Your task to perform on an android device: set the timer Image 0: 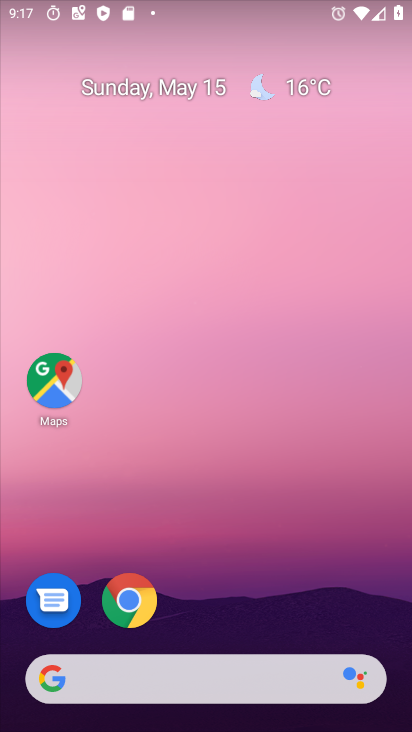
Step 0: drag from (233, 594) to (258, 117)
Your task to perform on an android device: set the timer Image 1: 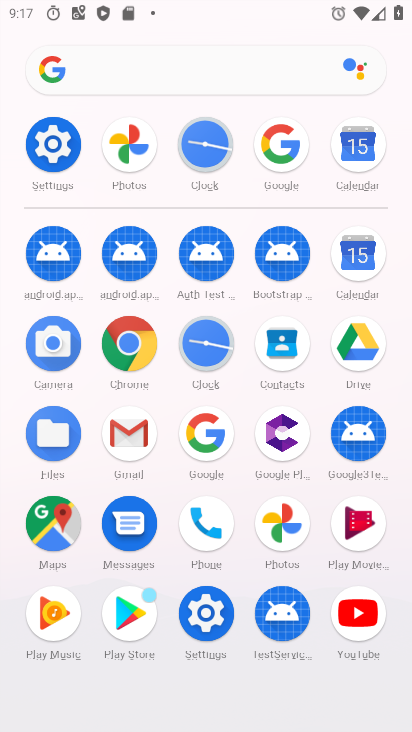
Step 1: click (207, 346)
Your task to perform on an android device: set the timer Image 2: 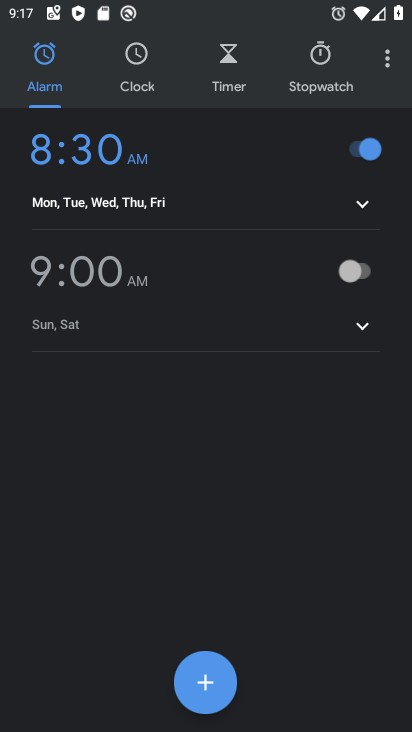
Step 2: click (237, 69)
Your task to perform on an android device: set the timer Image 3: 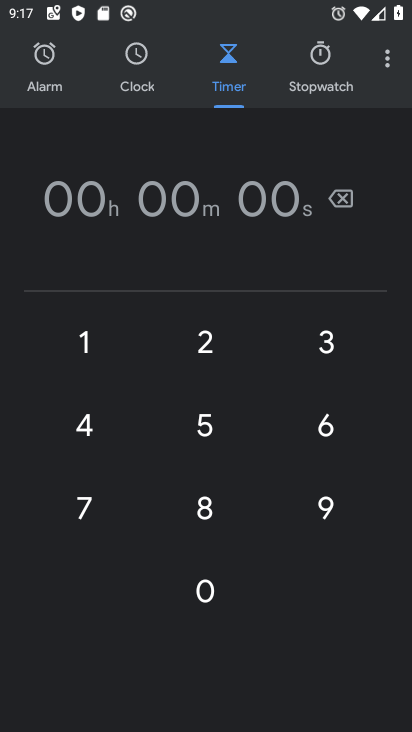
Step 3: click (206, 336)
Your task to perform on an android device: set the timer Image 4: 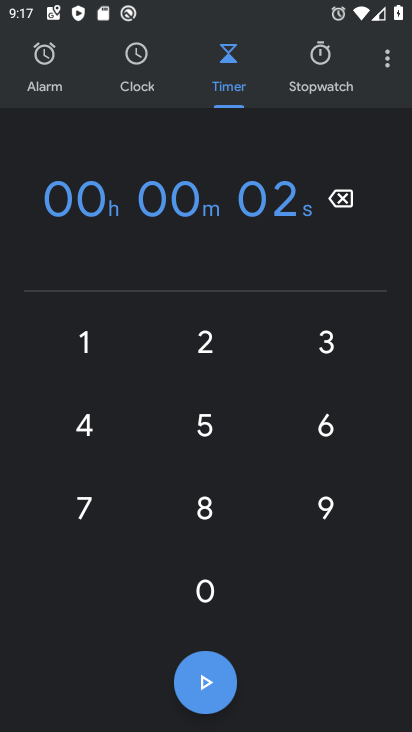
Step 4: click (204, 334)
Your task to perform on an android device: set the timer Image 5: 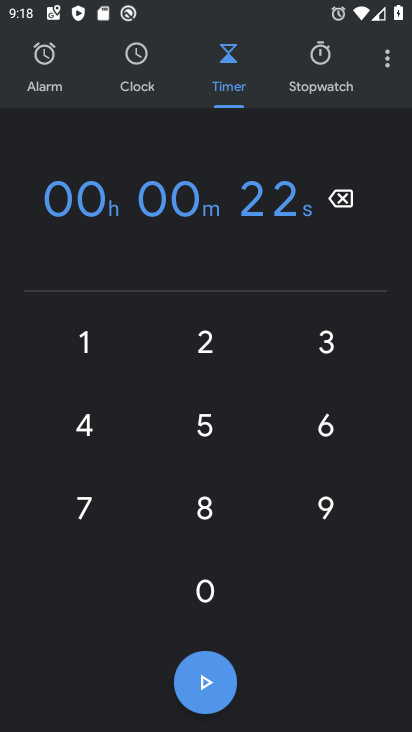
Step 5: task complete